Your task to perform on an android device: turn on data saver in the chrome app Image 0: 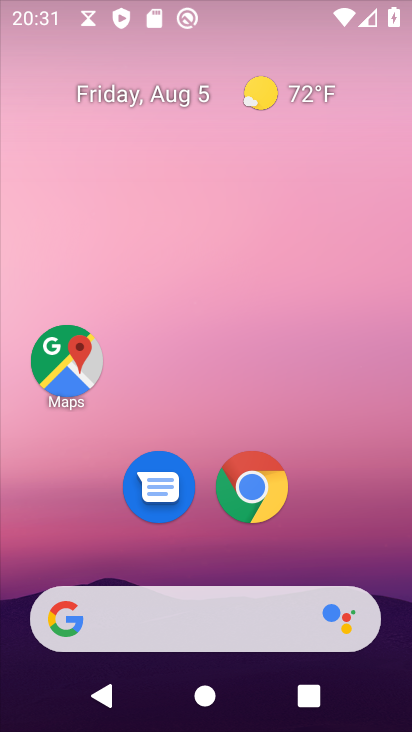
Step 0: press home button
Your task to perform on an android device: turn on data saver in the chrome app Image 1: 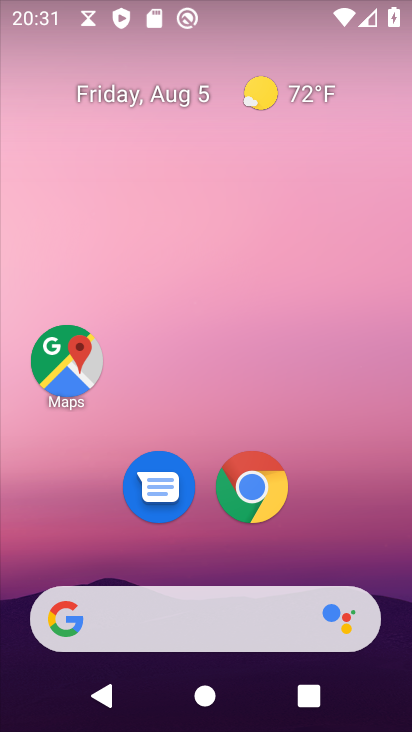
Step 1: click (258, 497)
Your task to perform on an android device: turn on data saver in the chrome app Image 2: 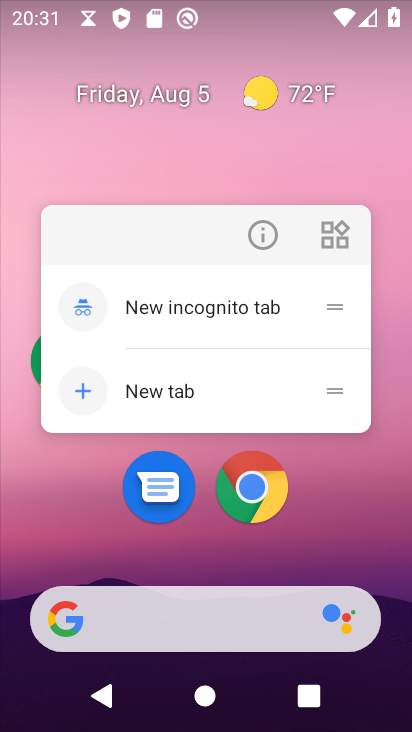
Step 2: click (261, 497)
Your task to perform on an android device: turn on data saver in the chrome app Image 3: 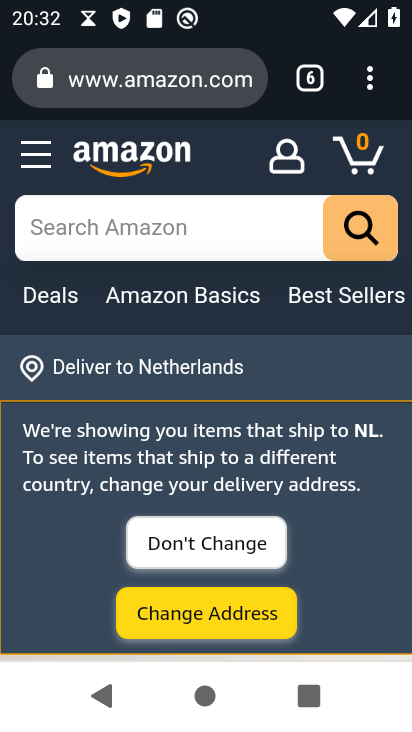
Step 3: drag from (372, 73) to (204, 548)
Your task to perform on an android device: turn on data saver in the chrome app Image 4: 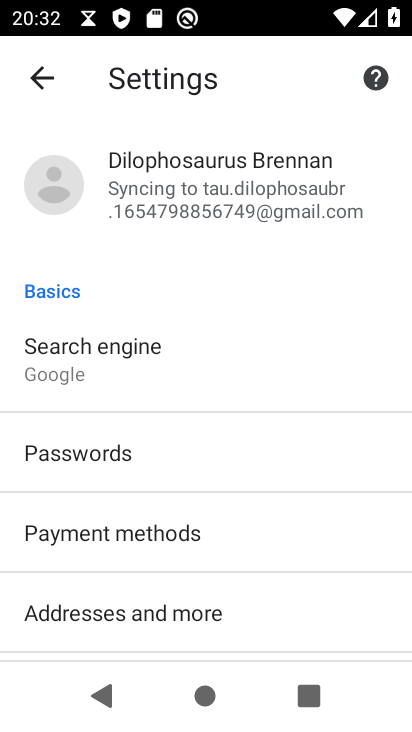
Step 4: drag from (280, 613) to (284, 156)
Your task to perform on an android device: turn on data saver in the chrome app Image 5: 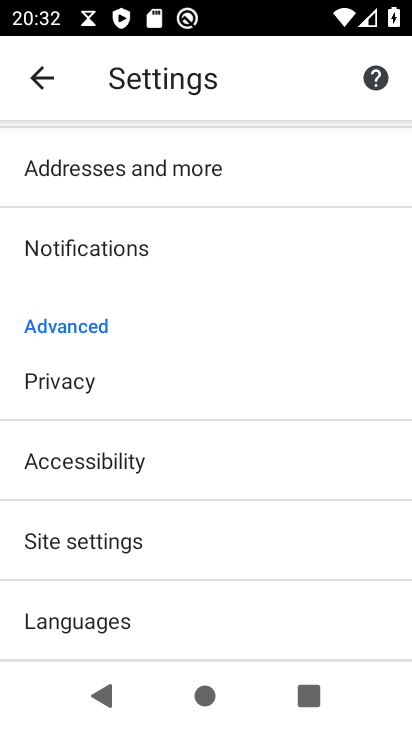
Step 5: drag from (156, 583) to (299, 167)
Your task to perform on an android device: turn on data saver in the chrome app Image 6: 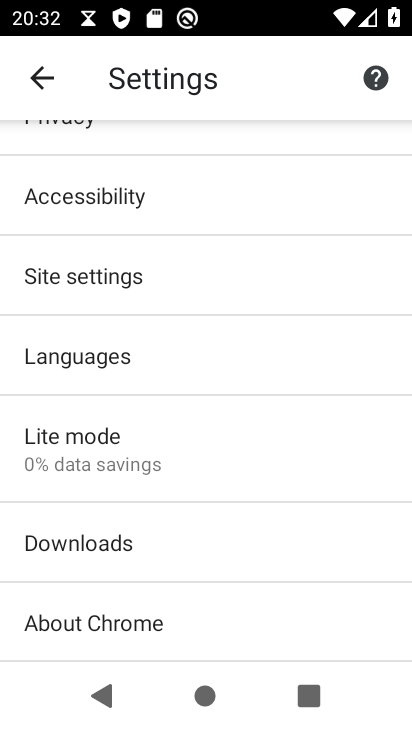
Step 6: click (127, 450)
Your task to perform on an android device: turn on data saver in the chrome app Image 7: 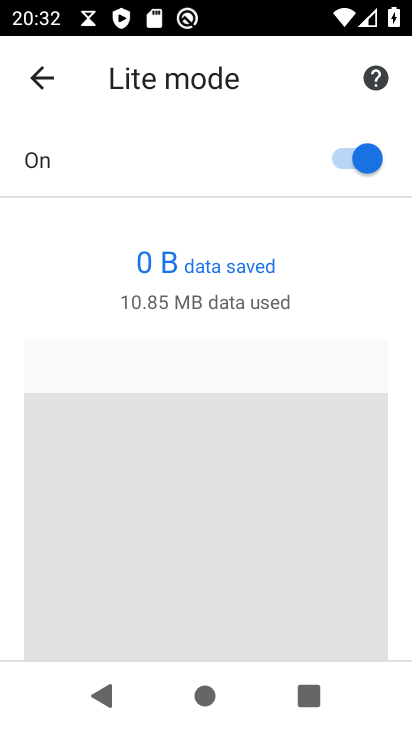
Step 7: task complete